Your task to perform on an android device: Open Wikipedia Image 0: 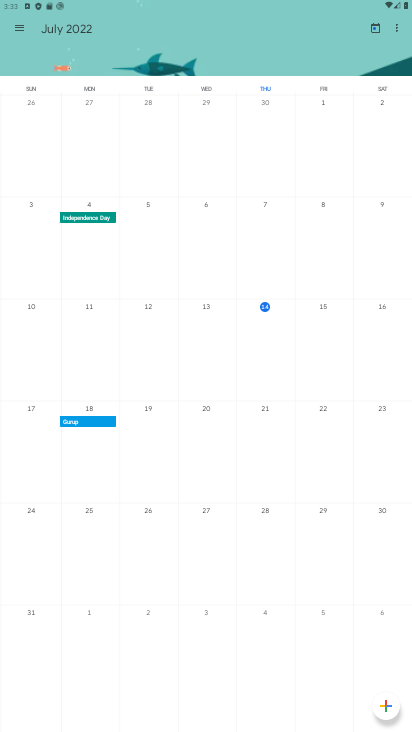
Step 0: press home button
Your task to perform on an android device: Open Wikipedia Image 1: 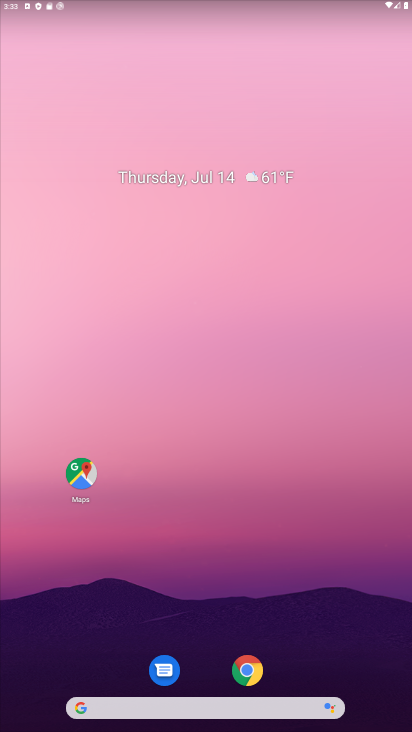
Step 1: drag from (222, 644) to (265, 254)
Your task to perform on an android device: Open Wikipedia Image 2: 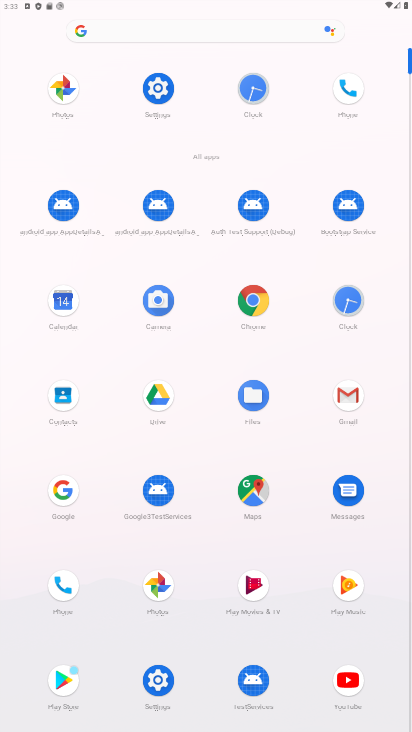
Step 2: click (231, 285)
Your task to perform on an android device: Open Wikipedia Image 3: 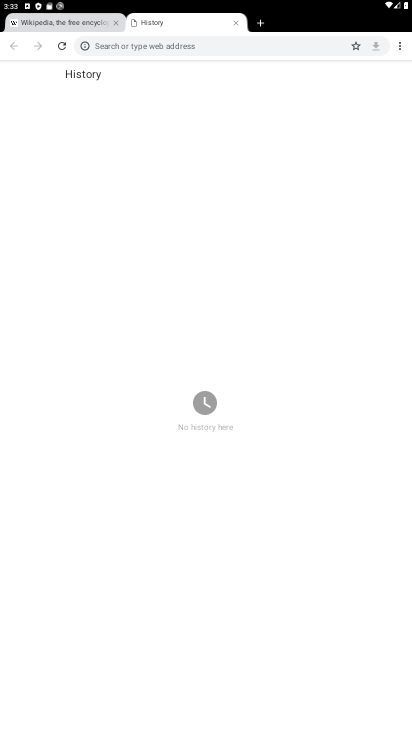
Step 3: click (265, 19)
Your task to perform on an android device: Open Wikipedia Image 4: 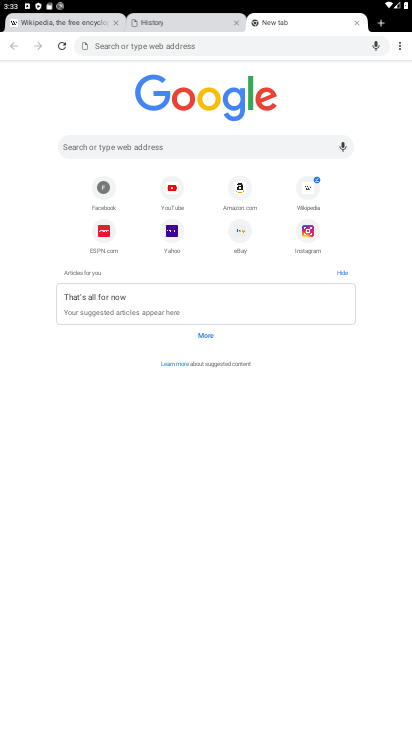
Step 4: click (303, 191)
Your task to perform on an android device: Open Wikipedia Image 5: 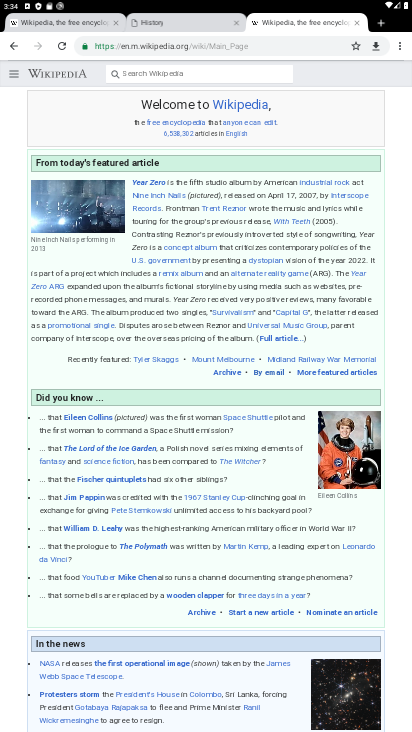
Step 5: task complete